Your task to perform on an android device: Open settings on Google Maps Image 0: 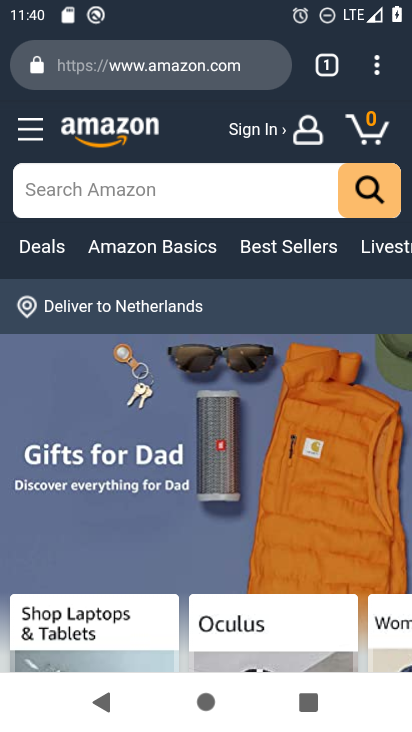
Step 0: press home button
Your task to perform on an android device: Open settings on Google Maps Image 1: 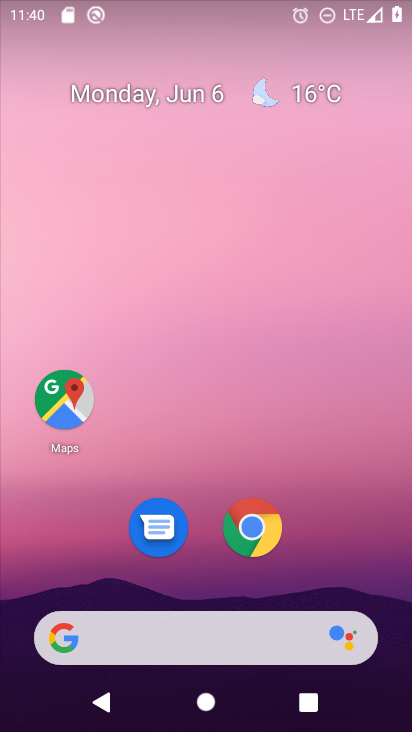
Step 1: drag from (374, 557) to (361, 153)
Your task to perform on an android device: Open settings on Google Maps Image 2: 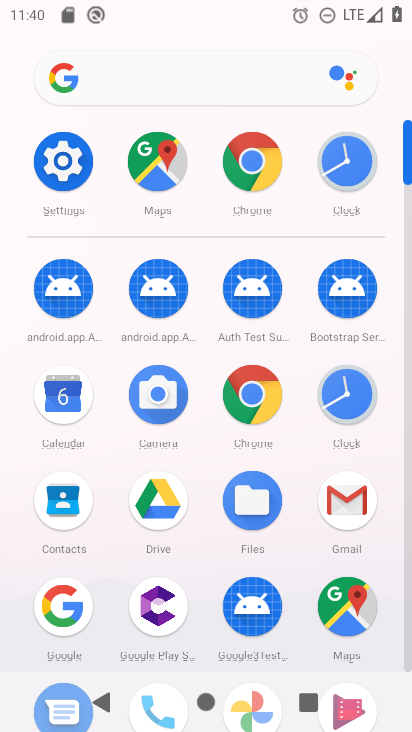
Step 2: click (355, 594)
Your task to perform on an android device: Open settings on Google Maps Image 3: 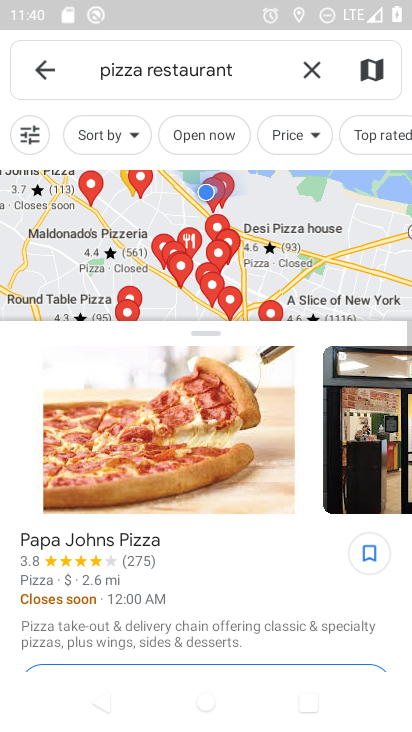
Step 3: click (31, 78)
Your task to perform on an android device: Open settings on Google Maps Image 4: 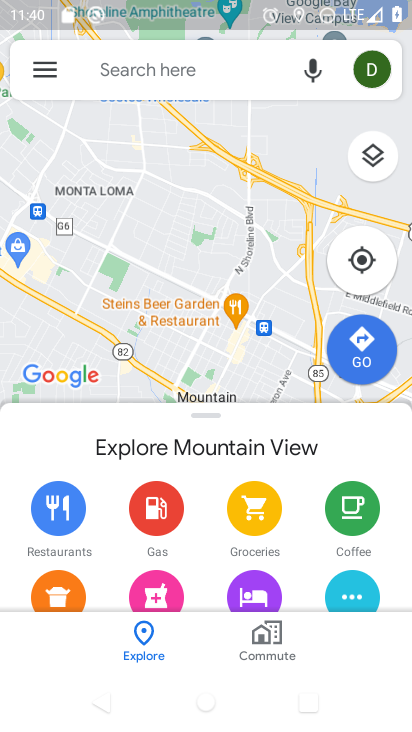
Step 4: click (52, 77)
Your task to perform on an android device: Open settings on Google Maps Image 5: 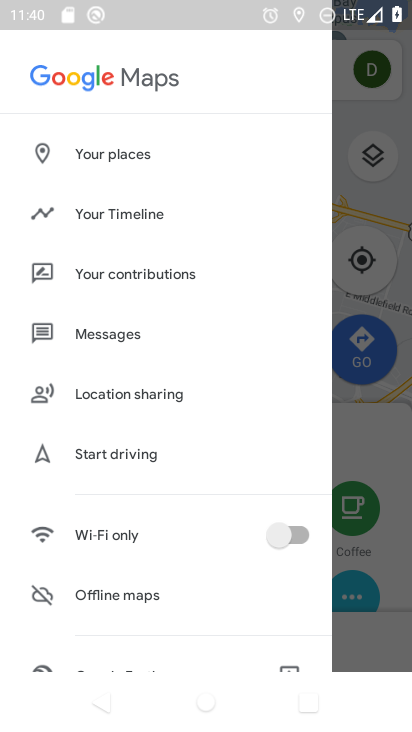
Step 5: drag from (231, 415) to (231, 320)
Your task to perform on an android device: Open settings on Google Maps Image 6: 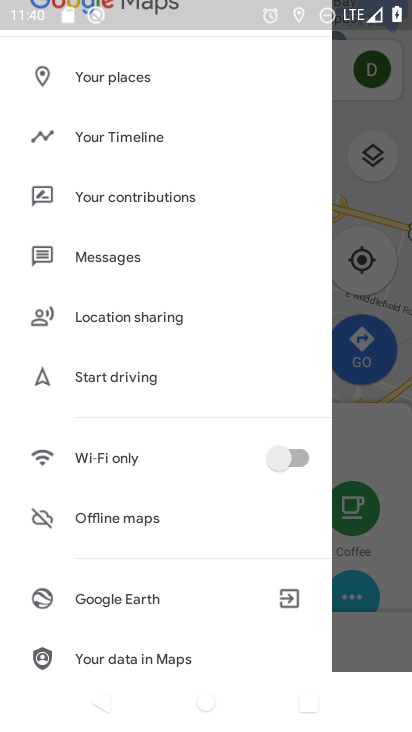
Step 6: drag from (216, 428) to (216, 358)
Your task to perform on an android device: Open settings on Google Maps Image 7: 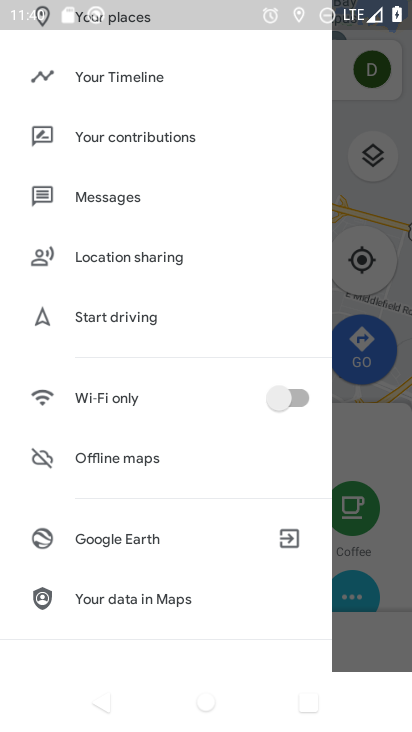
Step 7: drag from (224, 445) to (224, 380)
Your task to perform on an android device: Open settings on Google Maps Image 8: 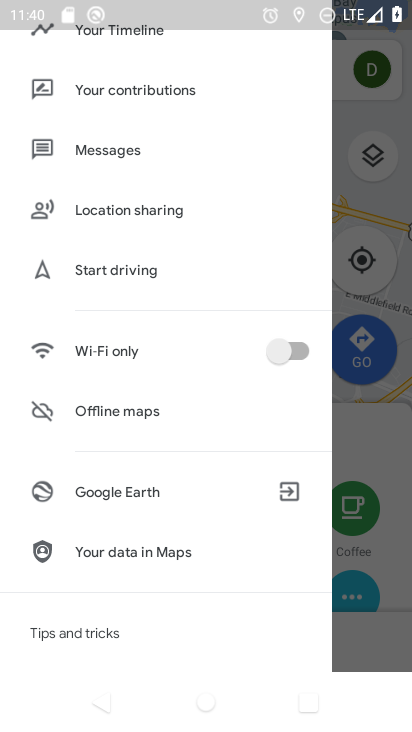
Step 8: drag from (219, 435) to (194, 313)
Your task to perform on an android device: Open settings on Google Maps Image 9: 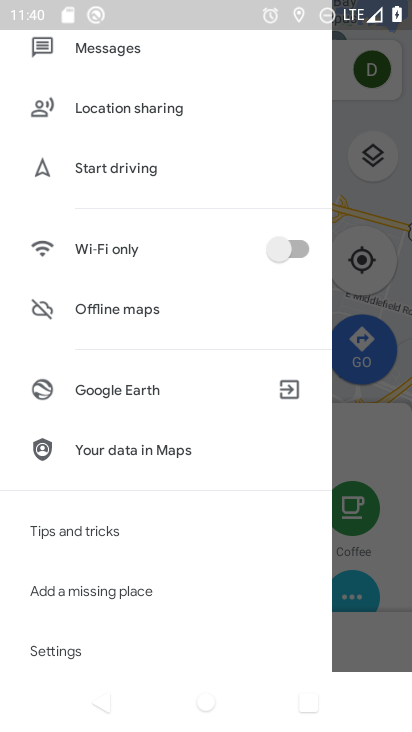
Step 9: drag from (218, 553) to (214, 413)
Your task to perform on an android device: Open settings on Google Maps Image 10: 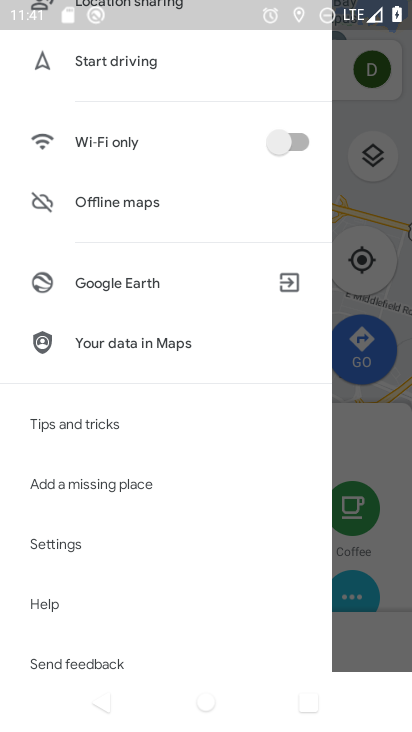
Step 10: drag from (198, 543) to (203, 421)
Your task to perform on an android device: Open settings on Google Maps Image 11: 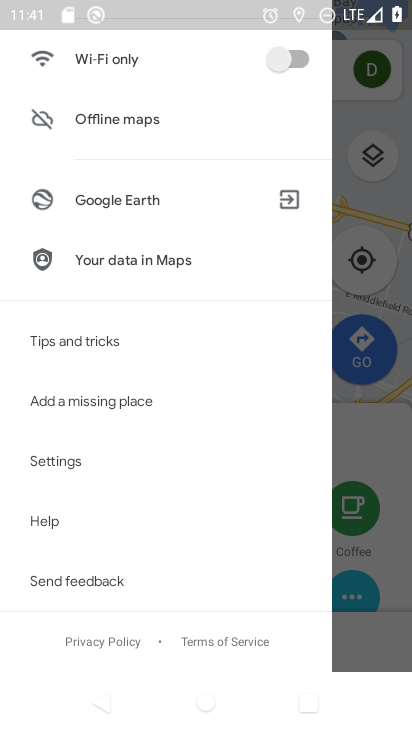
Step 11: drag from (207, 497) to (209, 412)
Your task to perform on an android device: Open settings on Google Maps Image 12: 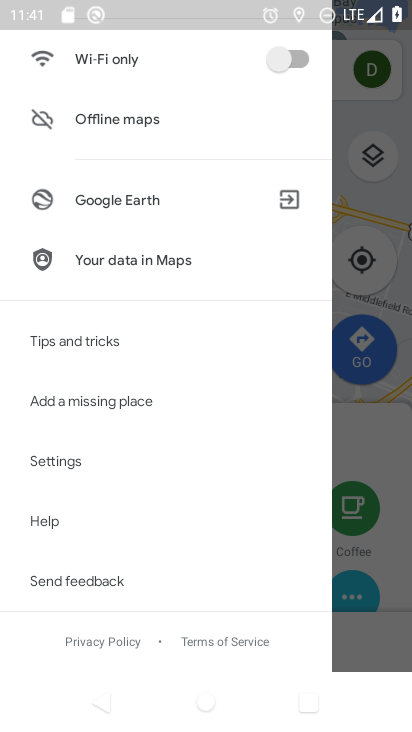
Step 12: click (93, 476)
Your task to perform on an android device: Open settings on Google Maps Image 13: 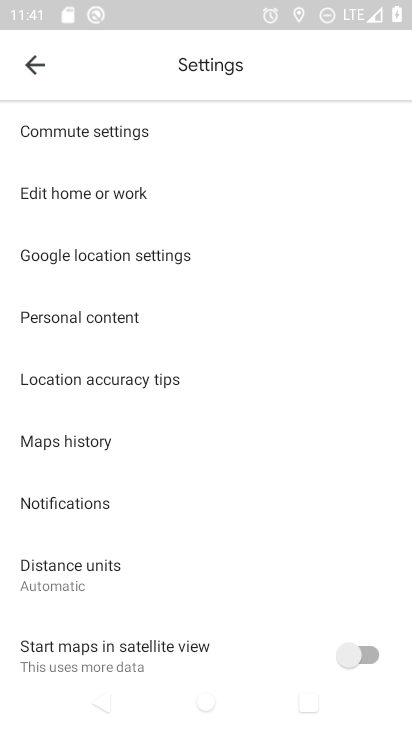
Step 13: task complete